Your task to perform on an android device: Open wifi settings Image 0: 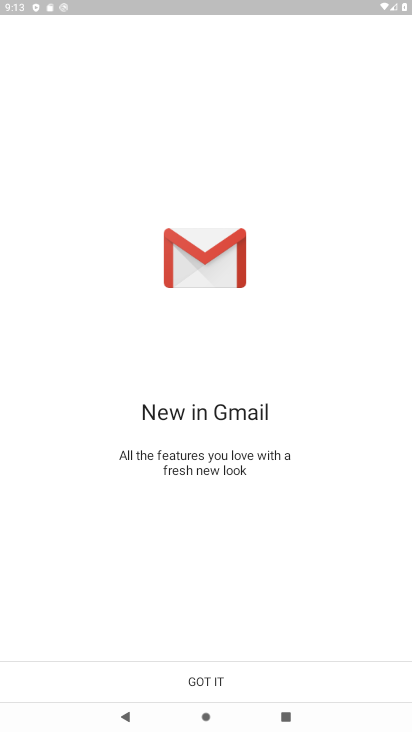
Step 0: press home button
Your task to perform on an android device: Open wifi settings Image 1: 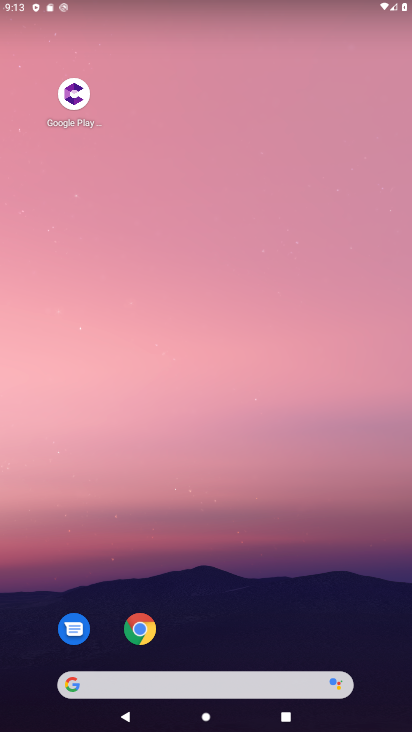
Step 1: drag from (326, 655) to (313, 568)
Your task to perform on an android device: Open wifi settings Image 2: 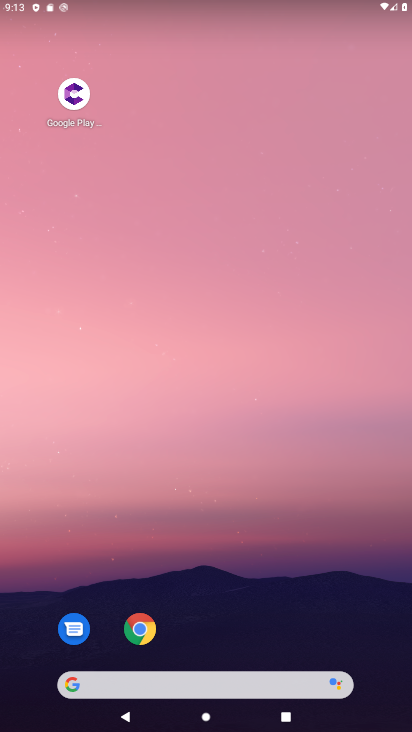
Step 2: drag from (362, 3) to (329, 516)
Your task to perform on an android device: Open wifi settings Image 3: 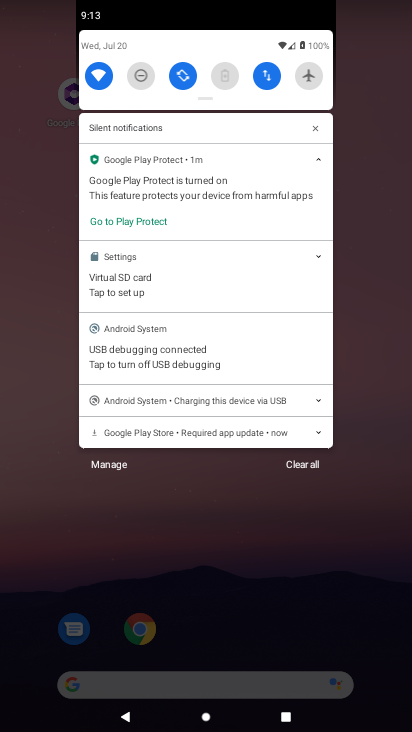
Step 3: click (106, 73)
Your task to perform on an android device: Open wifi settings Image 4: 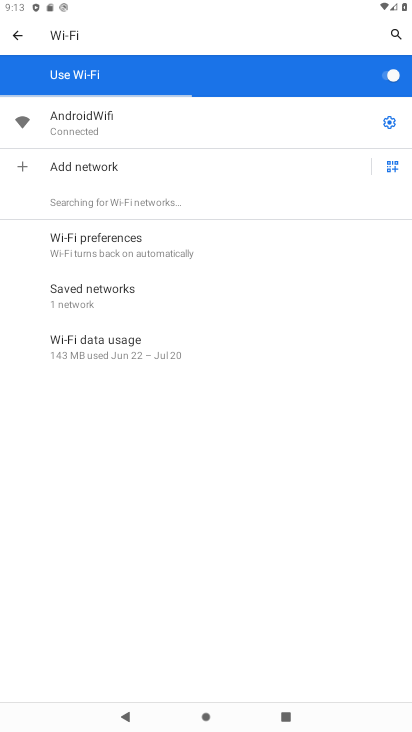
Step 4: task complete